Your task to perform on an android device: Open Chrome and go to settings Image 0: 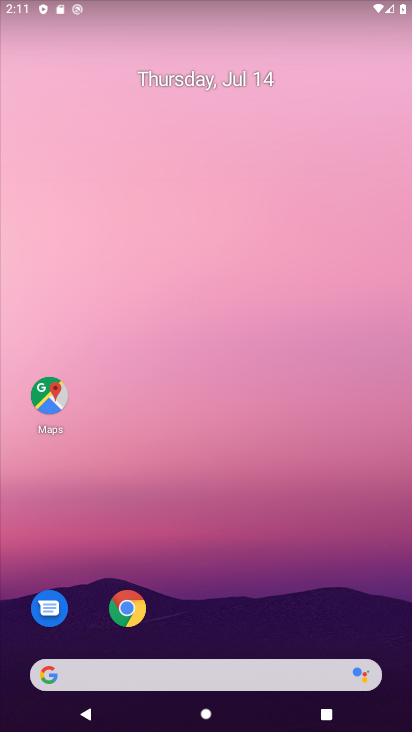
Step 0: drag from (259, 443) to (291, 158)
Your task to perform on an android device: Open Chrome and go to settings Image 1: 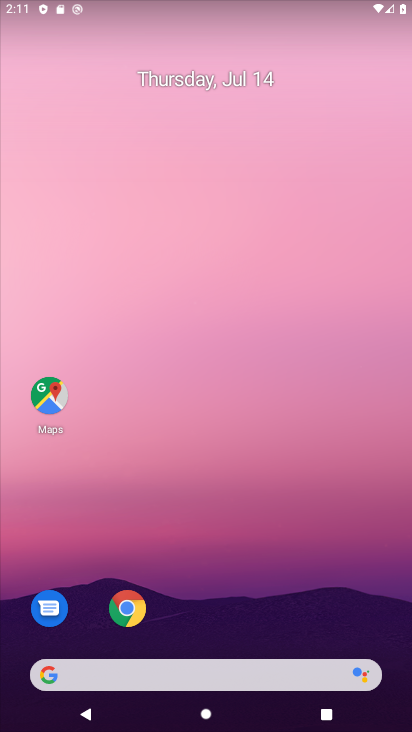
Step 1: drag from (188, 662) to (293, 267)
Your task to perform on an android device: Open Chrome and go to settings Image 2: 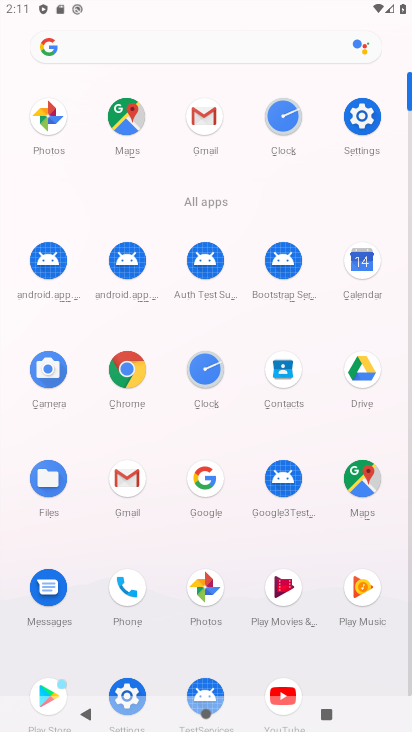
Step 2: click (110, 371)
Your task to perform on an android device: Open Chrome and go to settings Image 3: 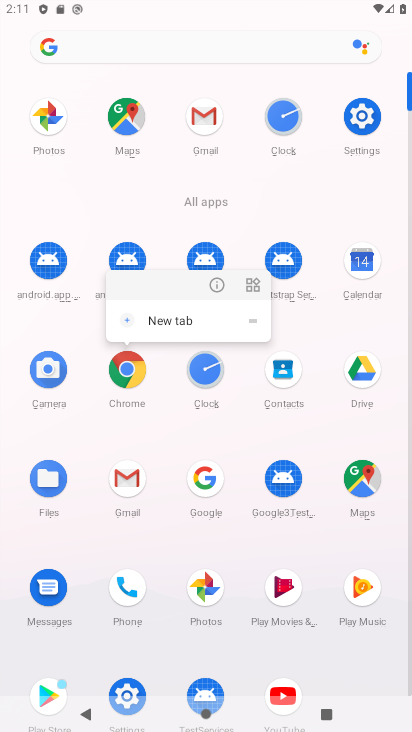
Step 3: click (115, 377)
Your task to perform on an android device: Open Chrome and go to settings Image 4: 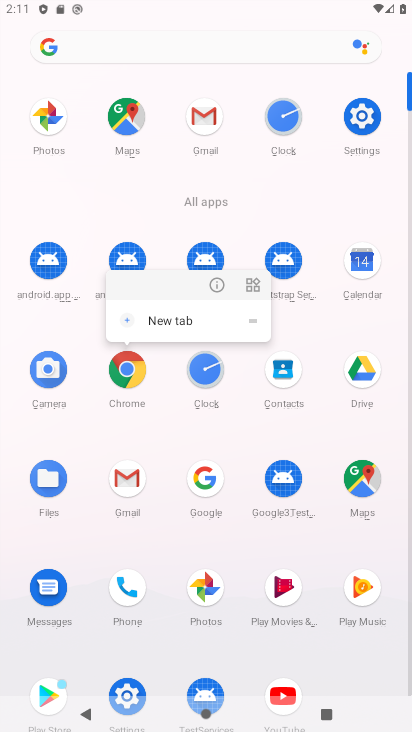
Step 4: click (122, 376)
Your task to perform on an android device: Open Chrome and go to settings Image 5: 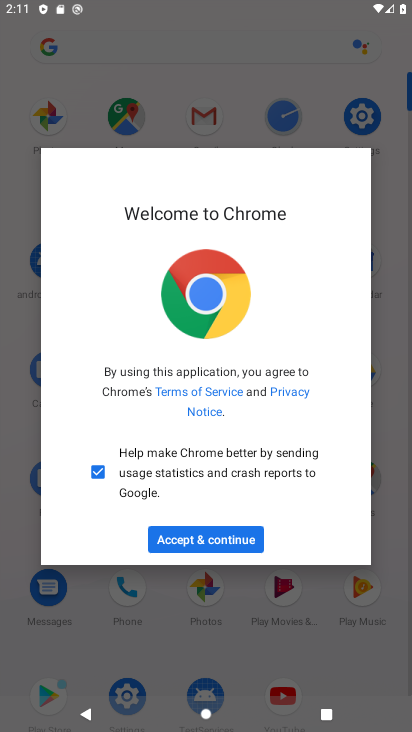
Step 5: click (214, 539)
Your task to perform on an android device: Open Chrome and go to settings Image 6: 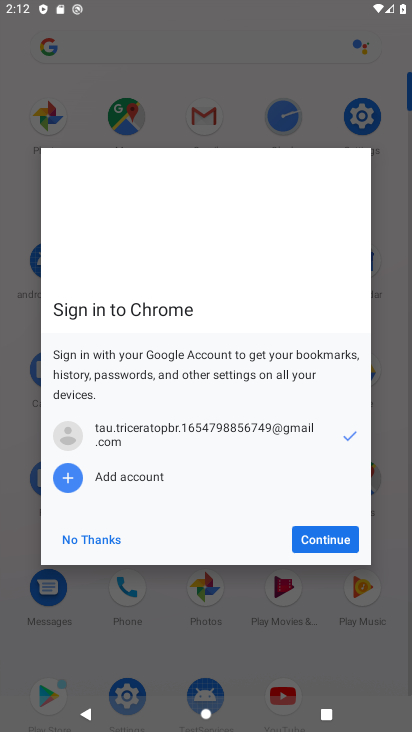
Step 6: click (347, 540)
Your task to perform on an android device: Open Chrome and go to settings Image 7: 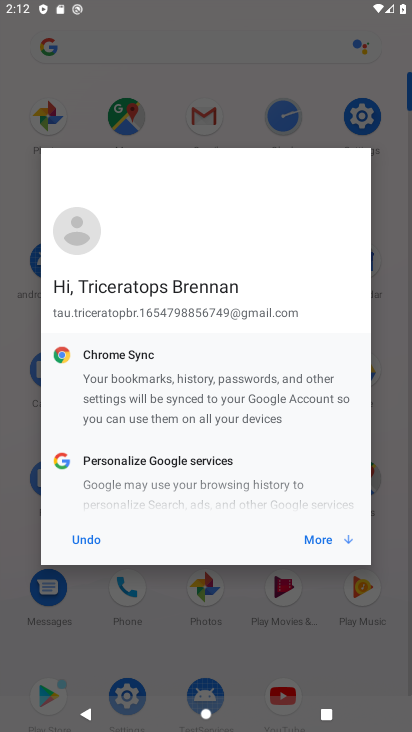
Step 7: click (329, 539)
Your task to perform on an android device: Open Chrome and go to settings Image 8: 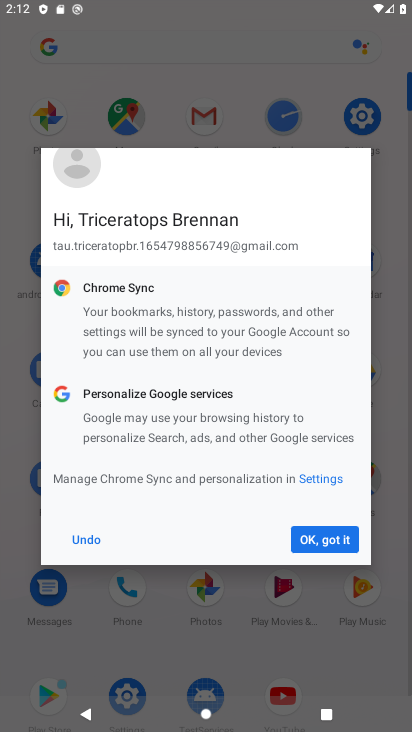
Step 8: click (333, 526)
Your task to perform on an android device: Open Chrome and go to settings Image 9: 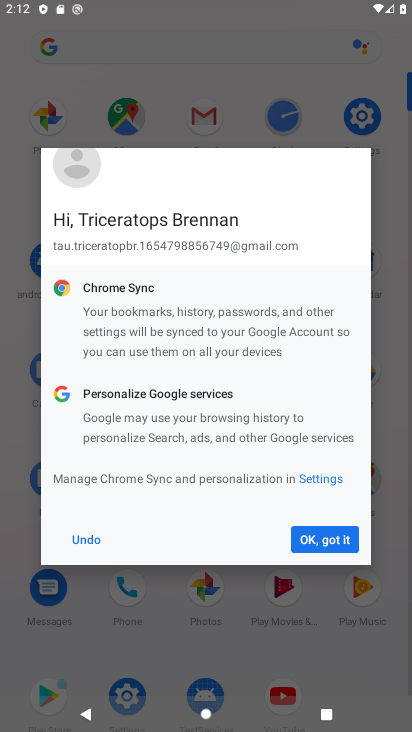
Step 9: click (353, 533)
Your task to perform on an android device: Open Chrome and go to settings Image 10: 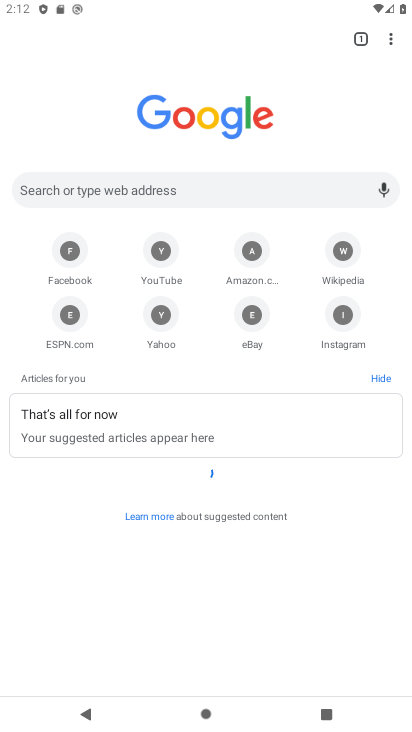
Step 10: task complete